Your task to perform on an android device: Find coffee shops on Maps Image 0: 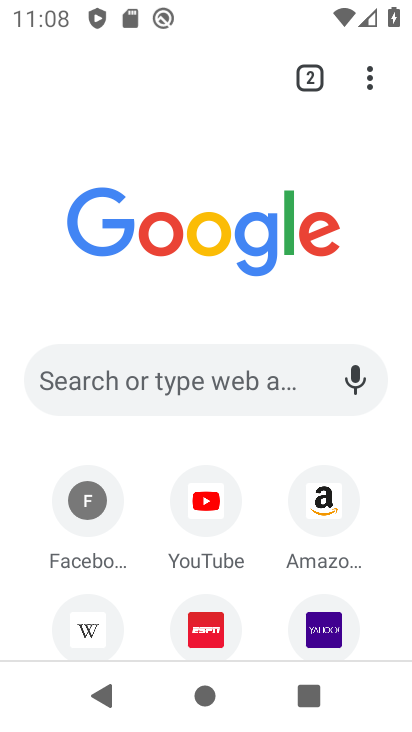
Step 0: press home button
Your task to perform on an android device: Find coffee shops on Maps Image 1: 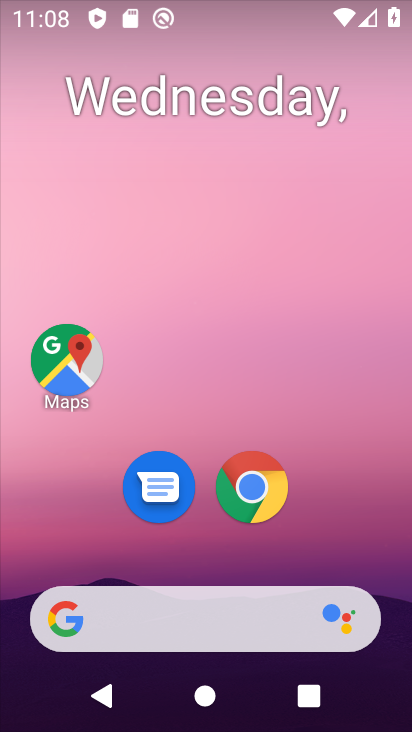
Step 1: click (73, 366)
Your task to perform on an android device: Find coffee shops on Maps Image 2: 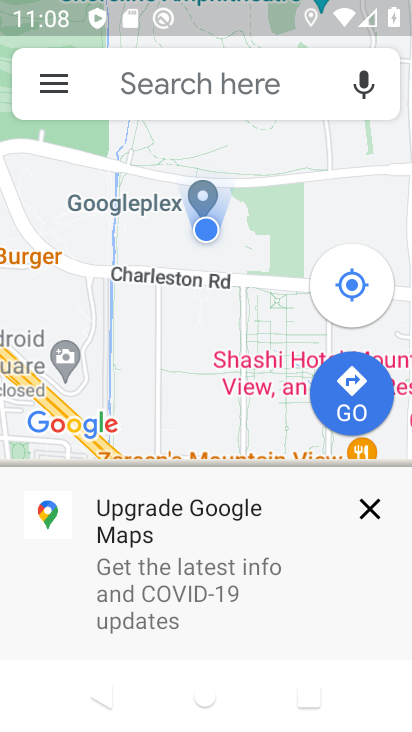
Step 2: click (127, 92)
Your task to perform on an android device: Find coffee shops on Maps Image 3: 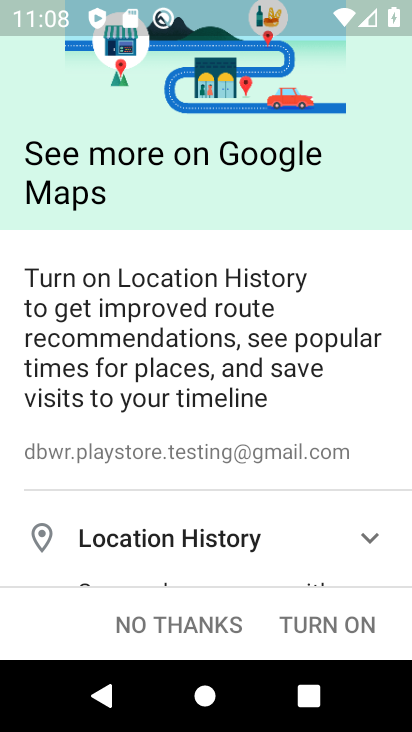
Step 3: click (150, 621)
Your task to perform on an android device: Find coffee shops on Maps Image 4: 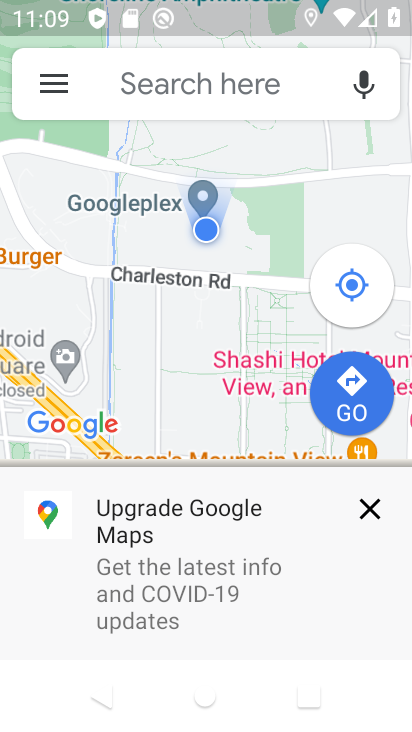
Step 4: click (162, 79)
Your task to perform on an android device: Find coffee shops on Maps Image 5: 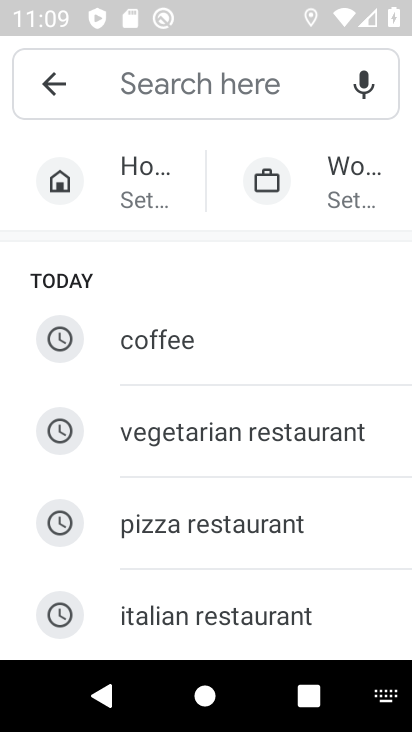
Step 5: type "coffee shops"
Your task to perform on an android device: Find coffee shops on Maps Image 6: 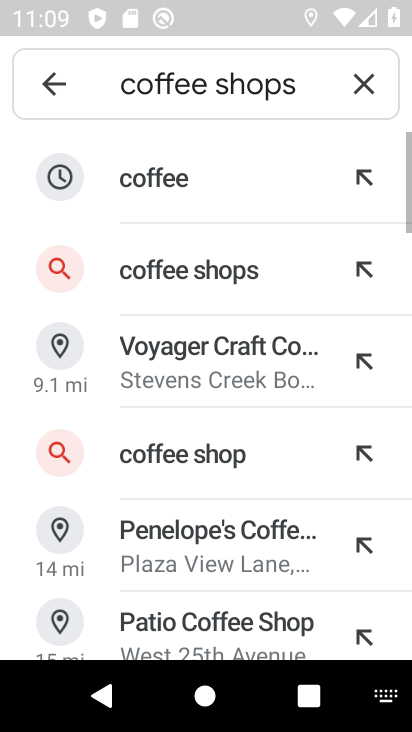
Step 6: click (180, 282)
Your task to perform on an android device: Find coffee shops on Maps Image 7: 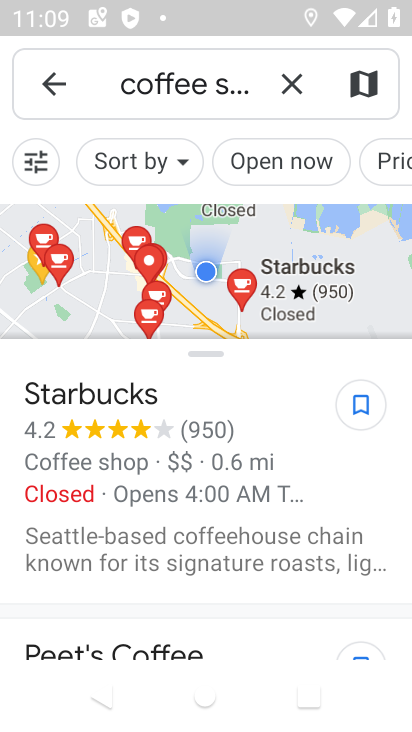
Step 7: task complete